Your task to perform on an android device: refresh tabs in the chrome app Image 0: 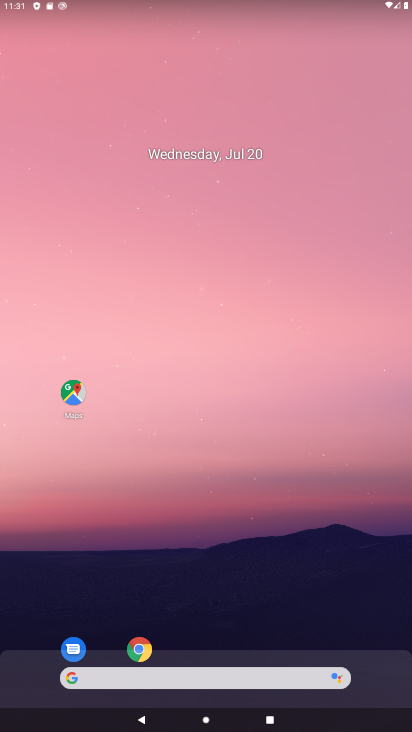
Step 0: drag from (272, 643) to (356, 11)
Your task to perform on an android device: refresh tabs in the chrome app Image 1: 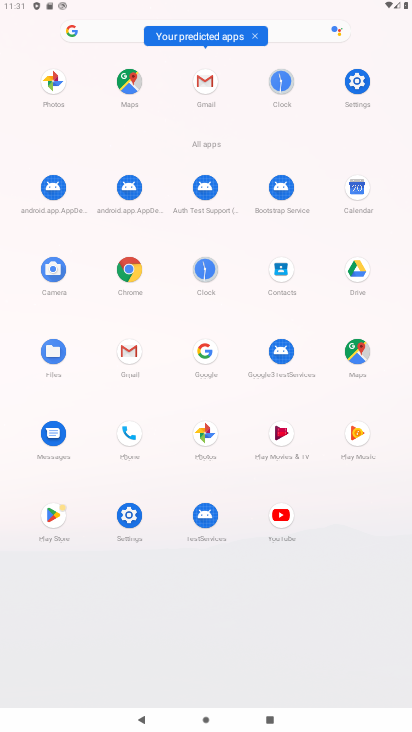
Step 1: click (130, 272)
Your task to perform on an android device: refresh tabs in the chrome app Image 2: 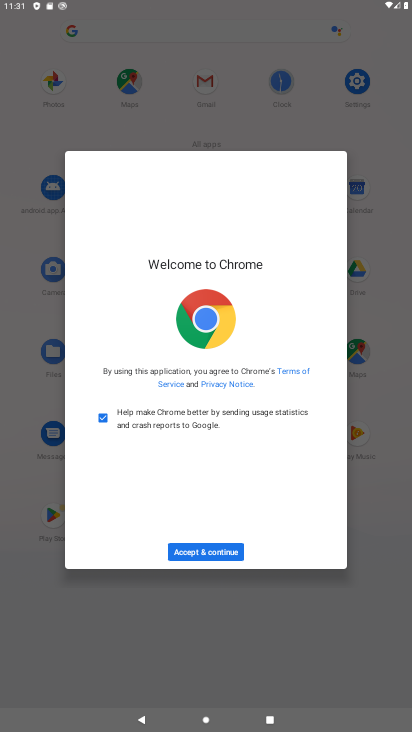
Step 2: click (225, 550)
Your task to perform on an android device: refresh tabs in the chrome app Image 3: 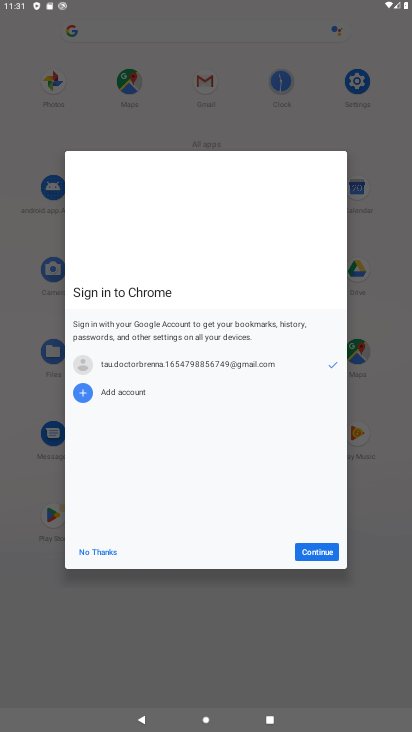
Step 3: click (319, 544)
Your task to perform on an android device: refresh tabs in the chrome app Image 4: 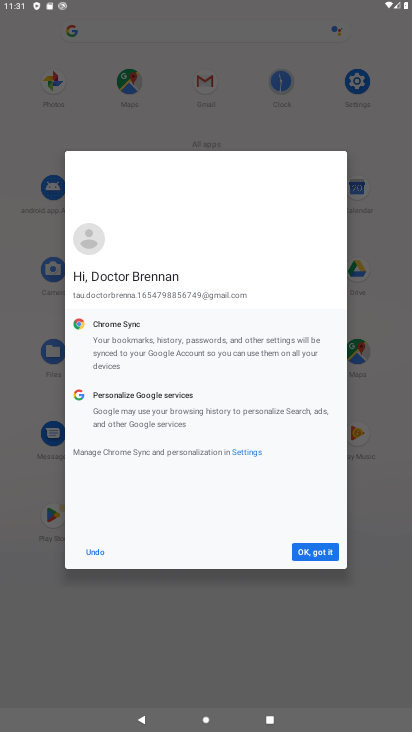
Step 4: click (319, 544)
Your task to perform on an android device: refresh tabs in the chrome app Image 5: 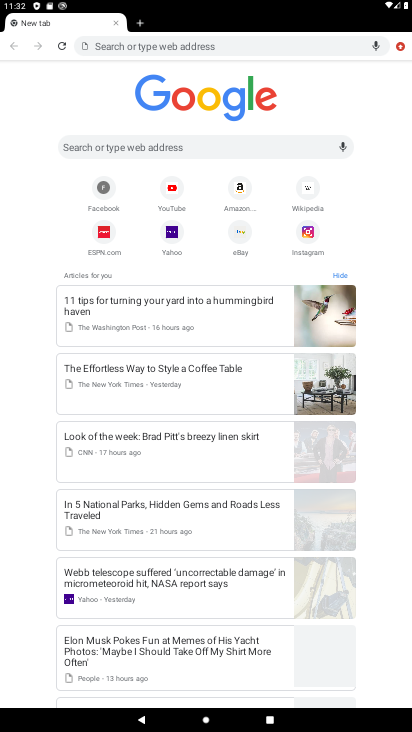
Step 5: drag from (402, 46) to (329, 48)
Your task to perform on an android device: refresh tabs in the chrome app Image 6: 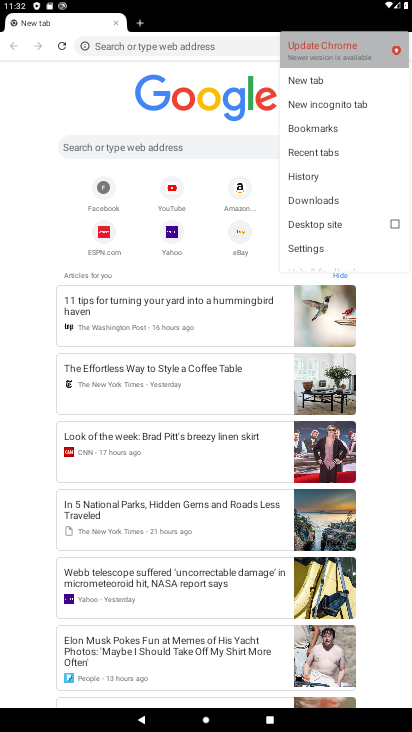
Step 6: click (329, 48)
Your task to perform on an android device: refresh tabs in the chrome app Image 7: 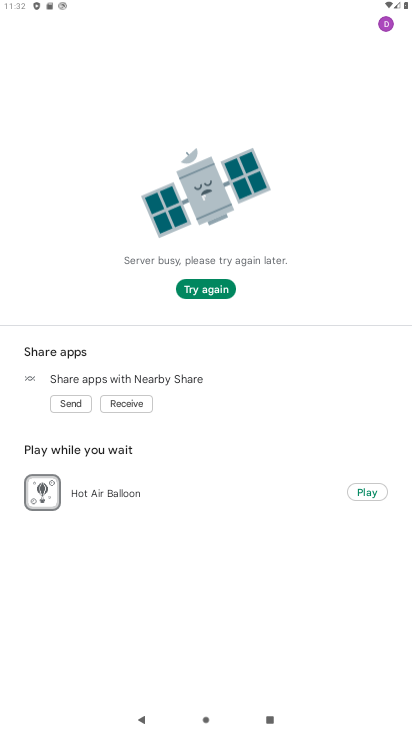
Step 7: task complete